Your task to perform on an android device: Open Amazon Image 0: 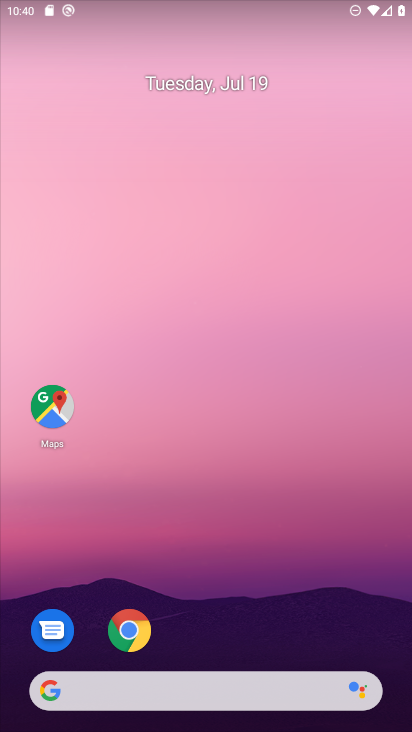
Step 0: click (150, 637)
Your task to perform on an android device: Open Amazon Image 1: 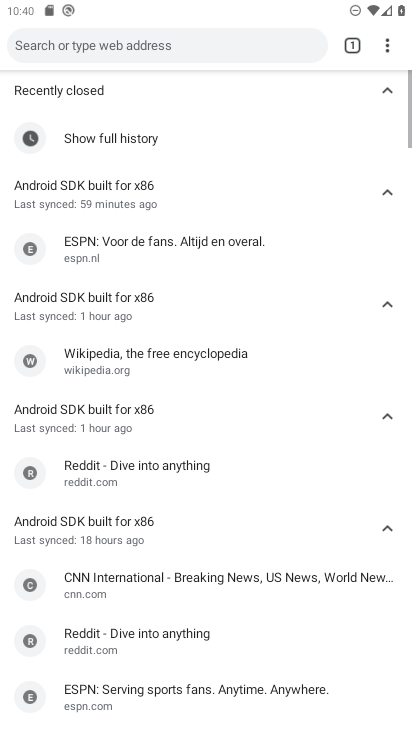
Step 1: click (344, 41)
Your task to perform on an android device: Open Amazon Image 2: 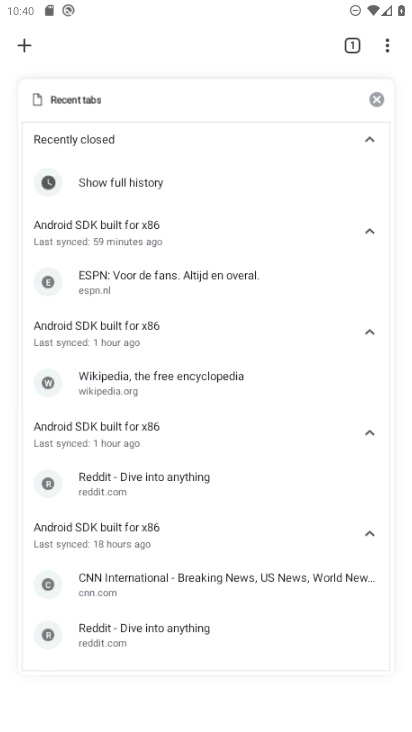
Step 2: click (31, 42)
Your task to perform on an android device: Open Amazon Image 3: 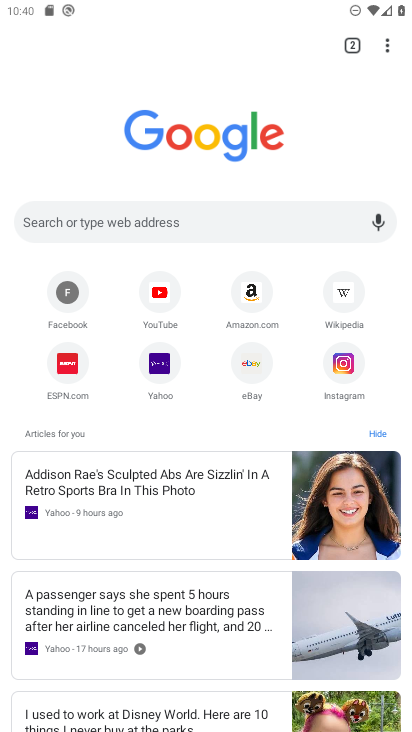
Step 3: click (253, 302)
Your task to perform on an android device: Open Amazon Image 4: 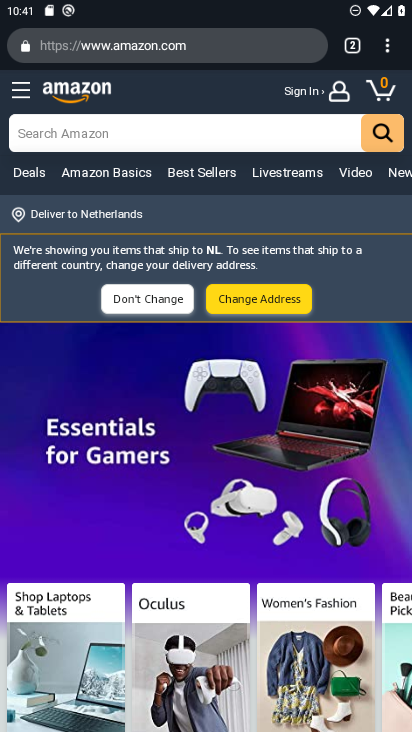
Step 4: task complete